Your task to perform on an android device: turn smart compose on in the gmail app Image 0: 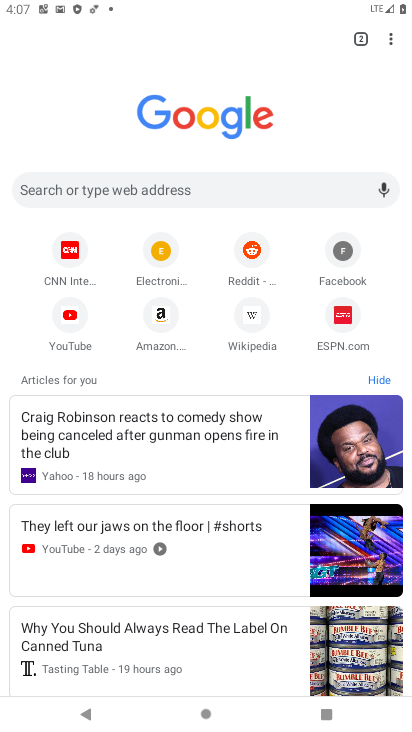
Step 0: press home button
Your task to perform on an android device: turn smart compose on in the gmail app Image 1: 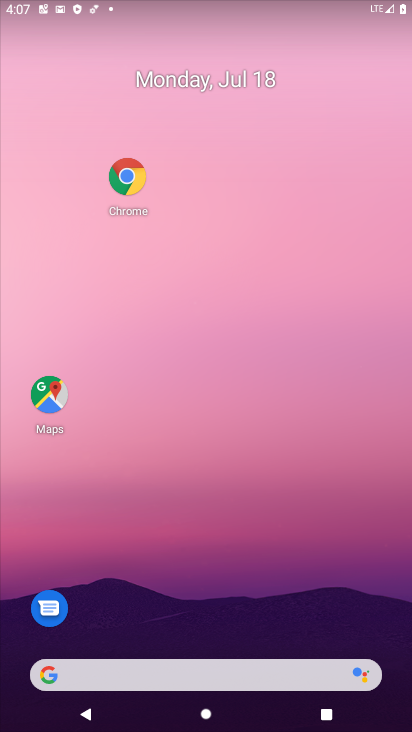
Step 1: drag from (140, 628) to (230, 298)
Your task to perform on an android device: turn smart compose on in the gmail app Image 2: 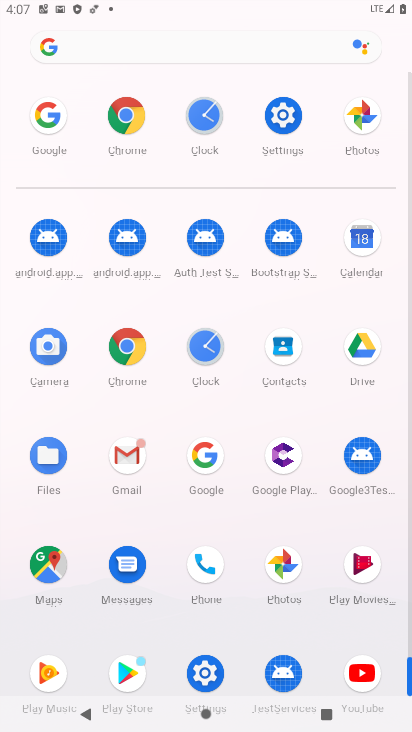
Step 2: click (128, 474)
Your task to perform on an android device: turn smart compose on in the gmail app Image 3: 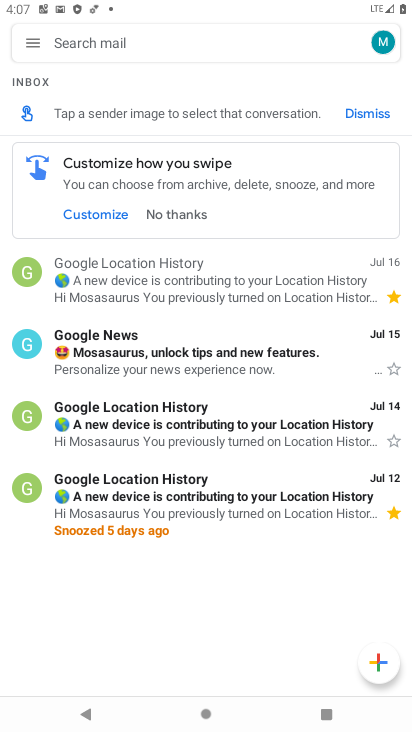
Step 3: click (34, 41)
Your task to perform on an android device: turn smart compose on in the gmail app Image 4: 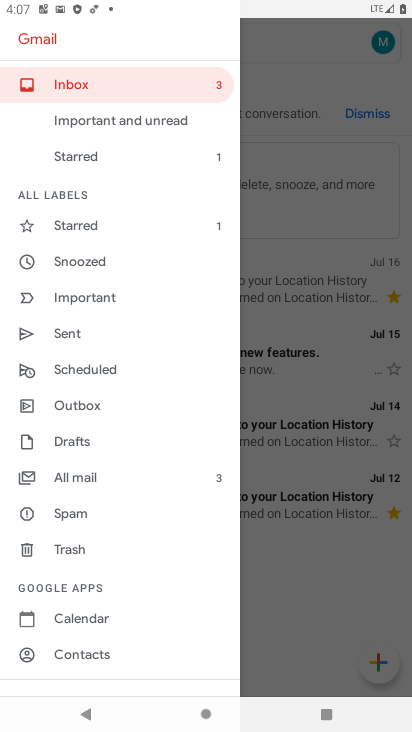
Step 4: drag from (76, 621) to (117, 399)
Your task to perform on an android device: turn smart compose on in the gmail app Image 5: 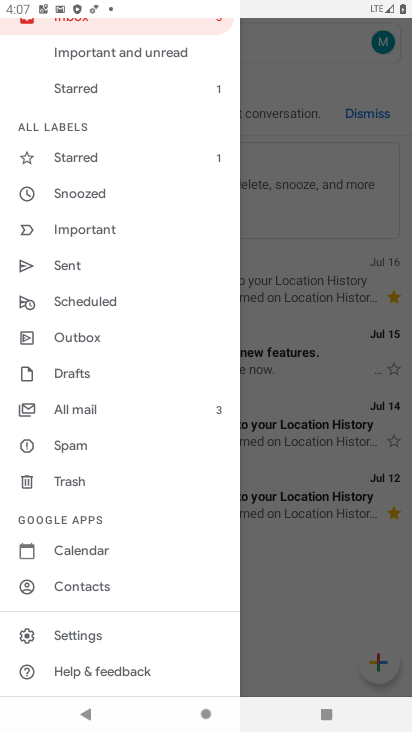
Step 5: click (78, 630)
Your task to perform on an android device: turn smart compose on in the gmail app Image 6: 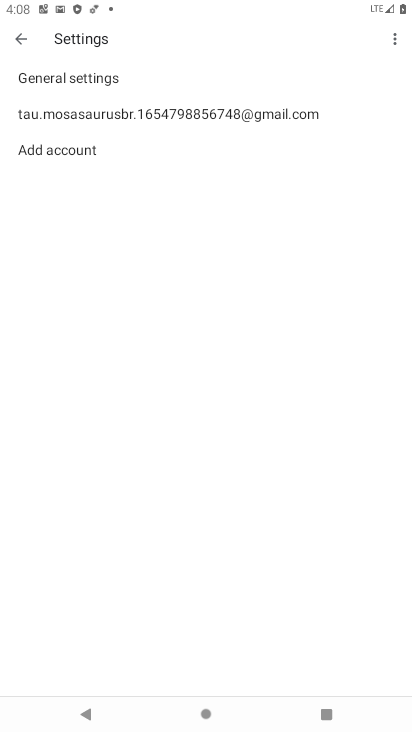
Step 6: click (62, 123)
Your task to perform on an android device: turn smart compose on in the gmail app Image 7: 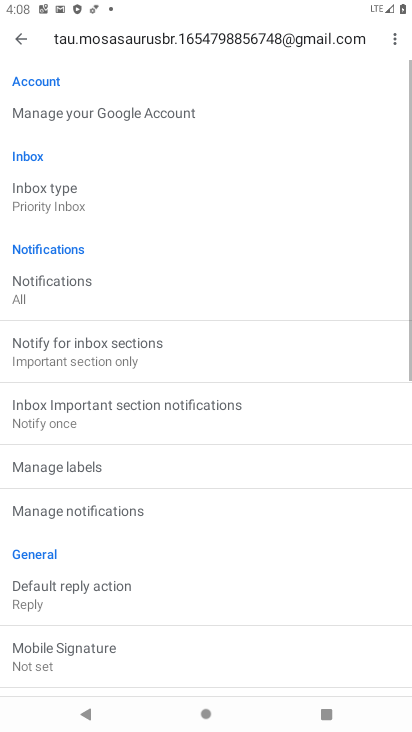
Step 7: task complete